Your task to perform on an android device: Open wifi settings Image 0: 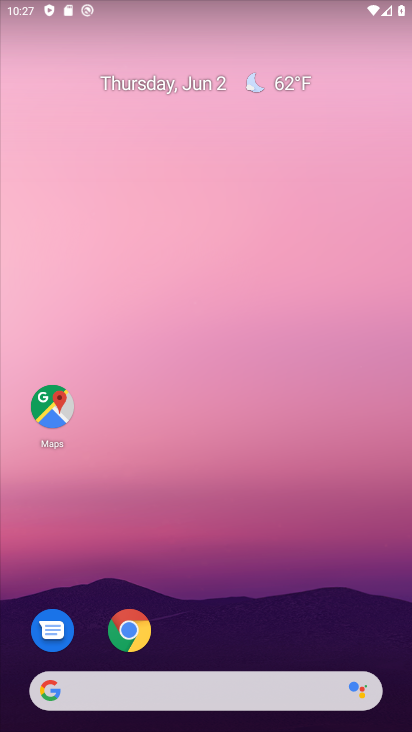
Step 0: press home button
Your task to perform on an android device: Open wifi settings Image 1: 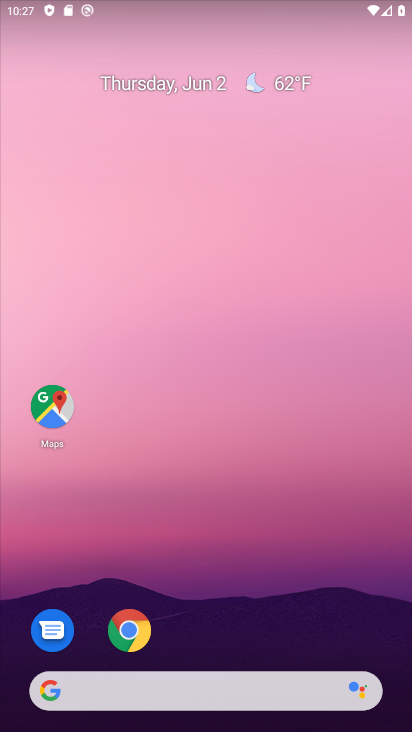
Step 1: drag from (169, 697) to (307, 118)
Your task to perform on an android device: Open wifi settings Image 2: 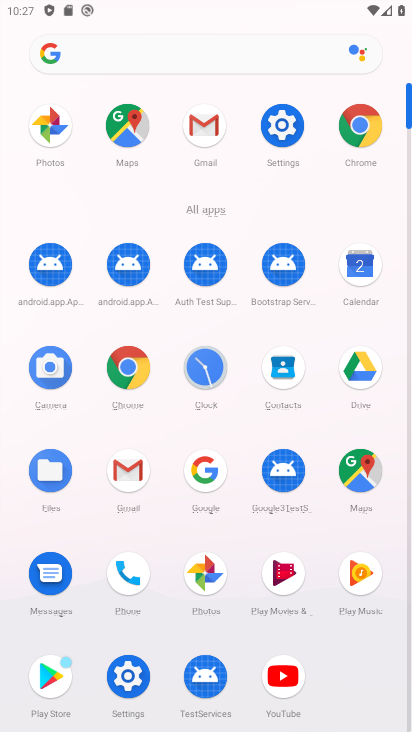
Step 2: click (278, 129)
Your task to perform on an android device: Open wifi settings Image 3: 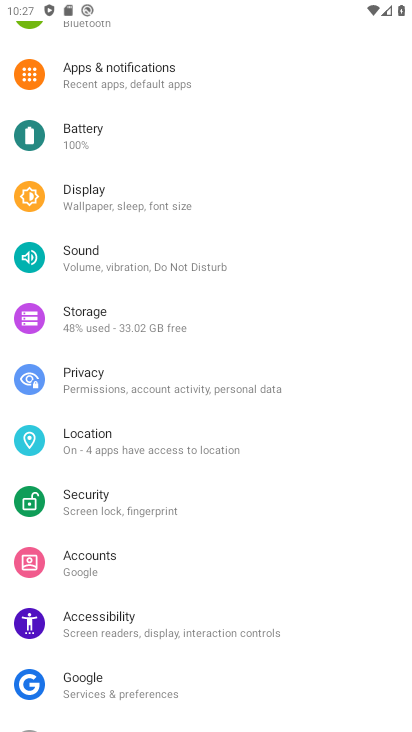
Step 3: drag from (282, 278) to (246, 561)
Your task to perform on an android device: Open wifi settings Image 4: 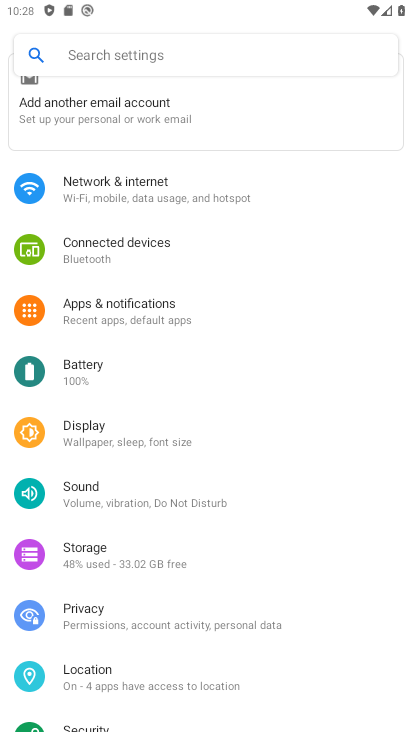
Step 4: click (119, 189)
Your task to perform on an android device: Open wifi settings Image 5: 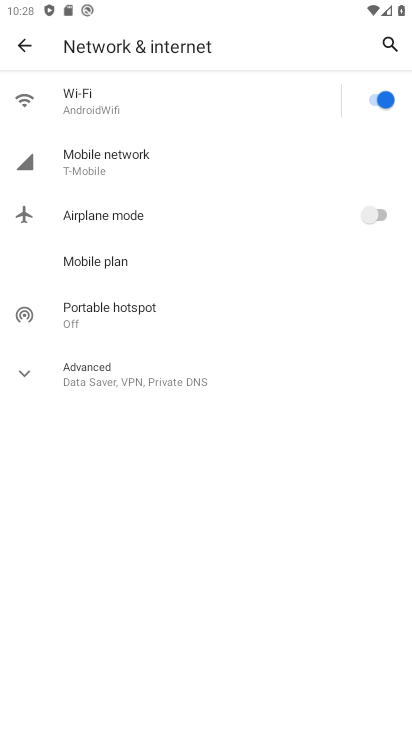
Step 5: click (95, 105)
Your task to perform on an android device: Open wifi settings Image 6: 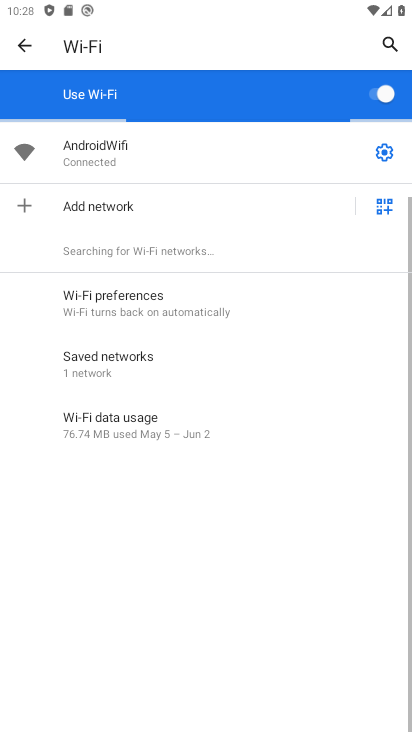
Step 6: task complete